Your task to perform on an android device: add a label to a message in the gmail app Image 0: 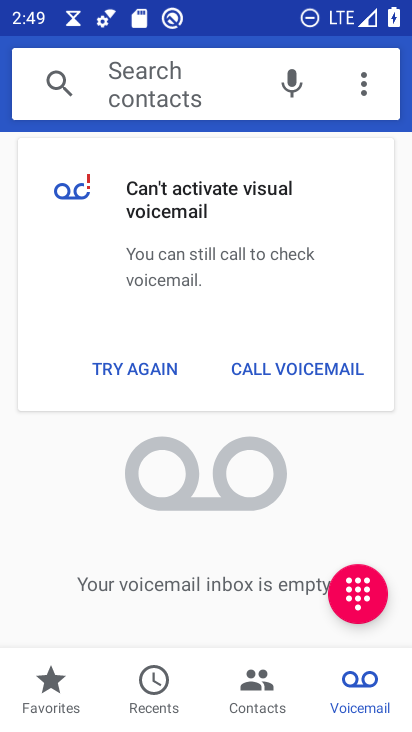
Step 0: press home button
Your task to perform on an android device: add a label to a message in the gmail app Image 1: 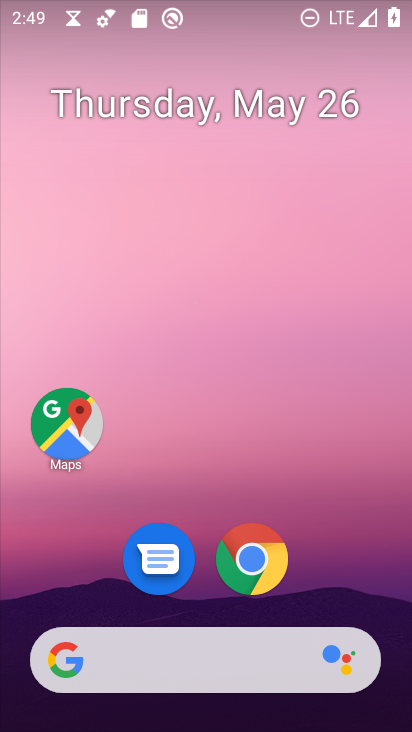
Step 1: drag from (199, 673) to (344, 184)
Your task to perform on an android device: add a label to a message in the gmail app Image 2: 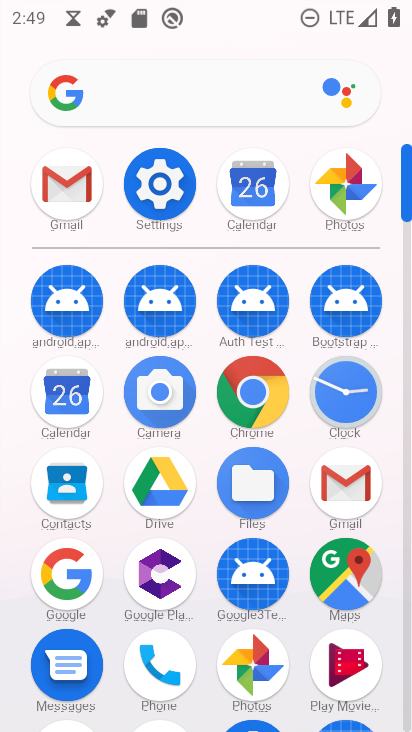
Step 2: click (74, 194)
Your task to perform on an android device: add a label to a message in the gmail app Image 3: 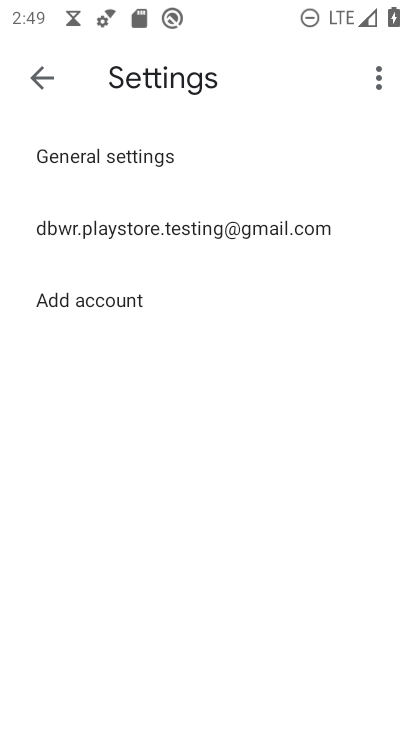
Step 3: click (41, 77)
Your task to perform on an android device: add a label to a message in the gmail app Image 4: 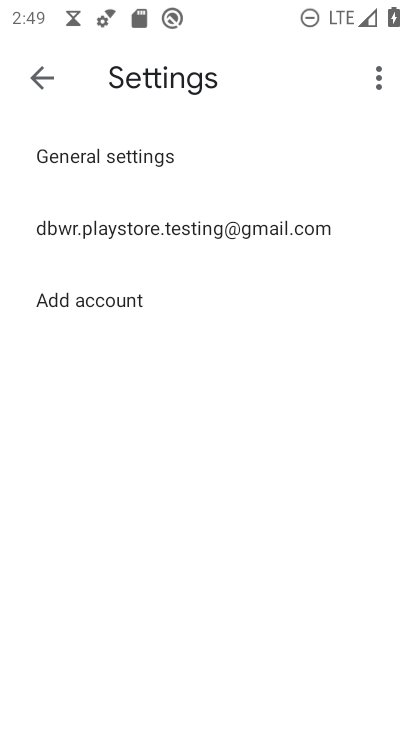
Step 4: click (48, 78)
Your task to perform on an android device: add a label to a message in the gmail app Image 5: 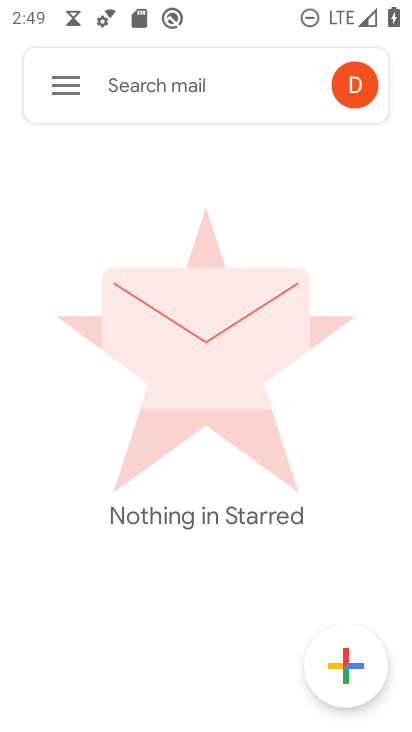
Step 5: click (61, 93)
Your task to perform on an android device: add a label to a message in the gmail app Image 6: 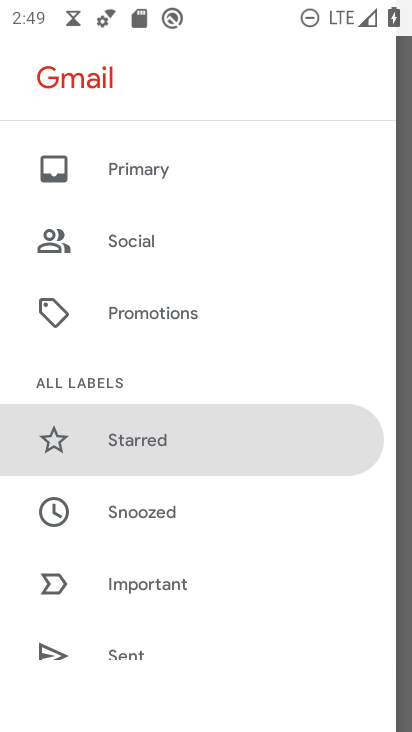
Step 6: drag from (162, 581) to (238, 223)
Your task to perform on an android device: add a label to a message in the gmail app Image 7: 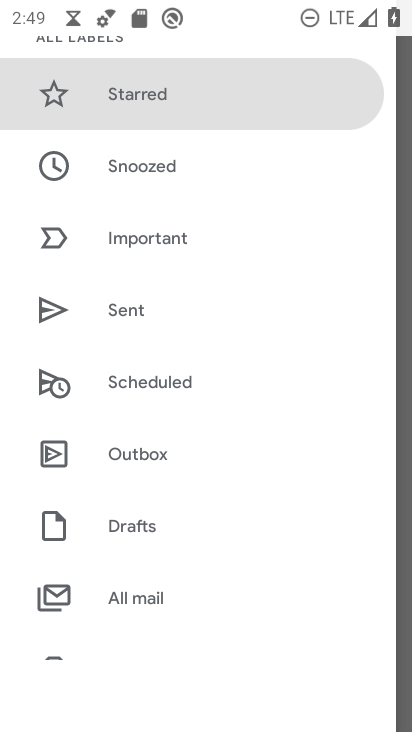
Step 7: click (149, 592)
Your task to perform on an android device: add a label to a message in the gmail app Image 8: 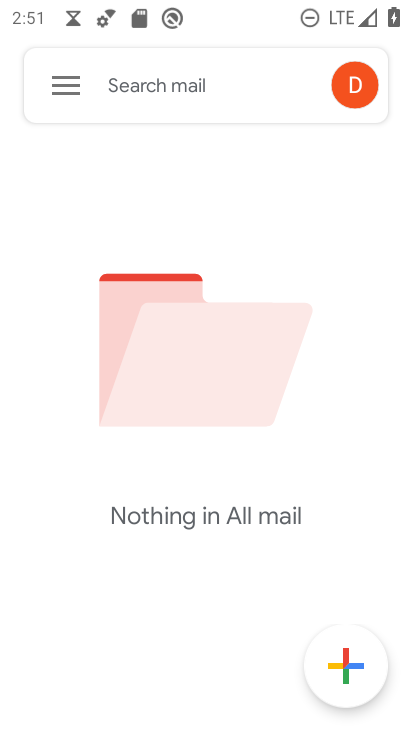
Step 8: task complete